Your task to perform on an android device: set an alarm Image 0: 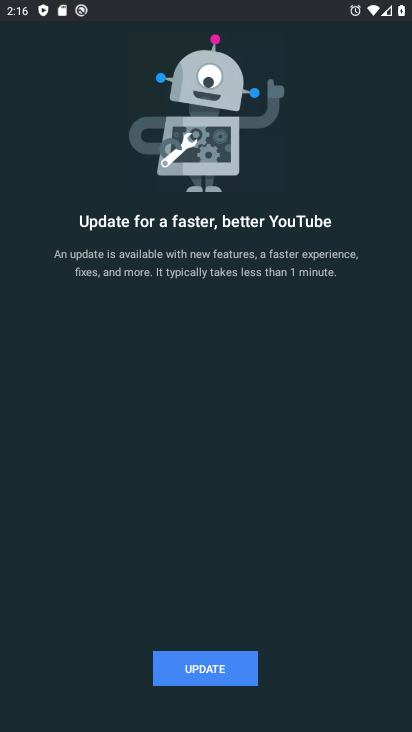
Step 0: press home button
Your task to perform on an android device: set an alarm Image 1: 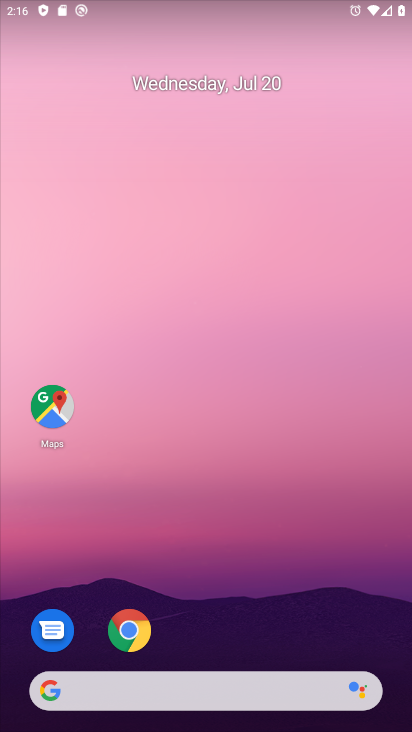
Step 1: drag from (51, 551) to (261, 146)
Your task to perform on an android device: set an alarm Image 2: 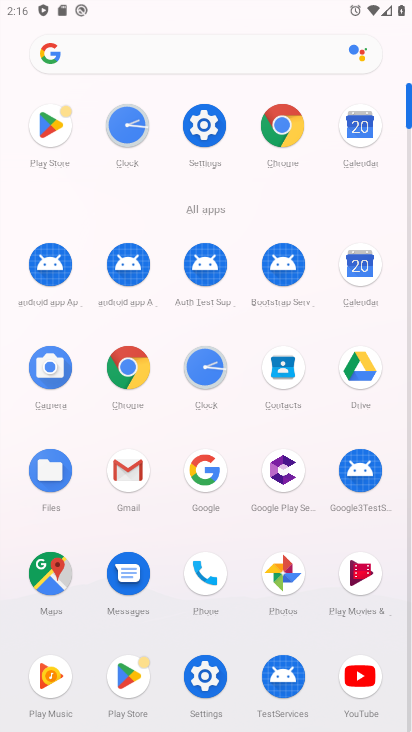
Step 2: click (124, 116)
Your task to perform on an android device: set an alarm Image 3: 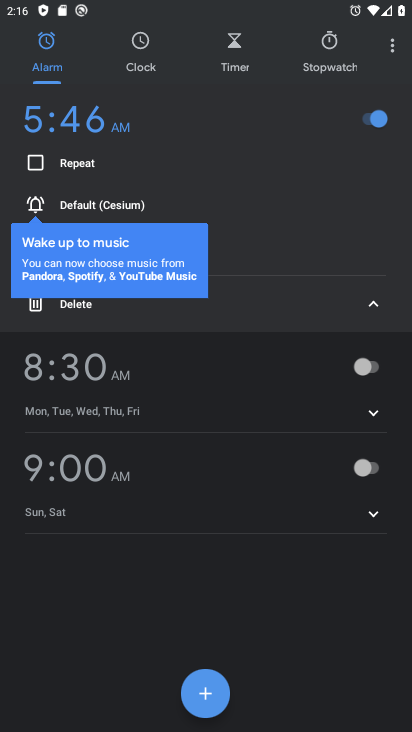
Step 3: click (206, 708)
Your task to perform on an android device: set an alarm Image 4: 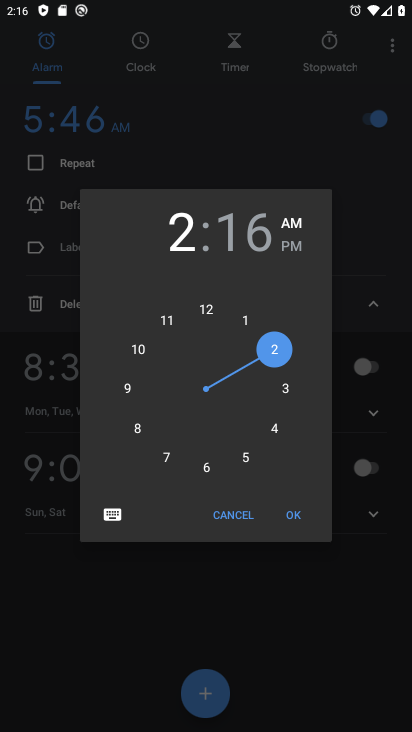
Step 4: click (271, 426)
Your task to perform on an android device: set an alarm Image 5: 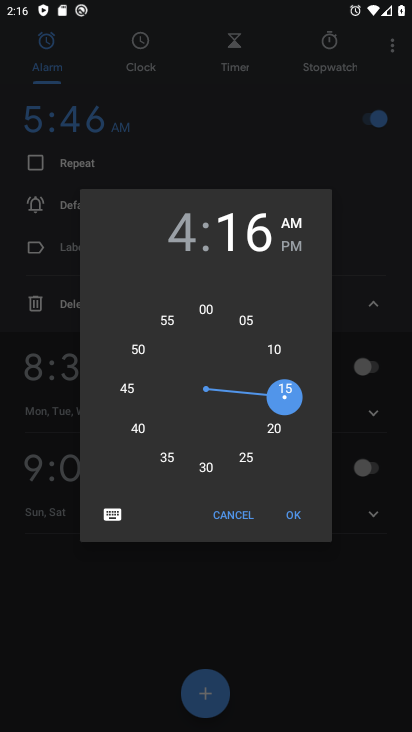
Step 5: click (252, 468)
Your task to perform on an android device: set an alarm Image 6: 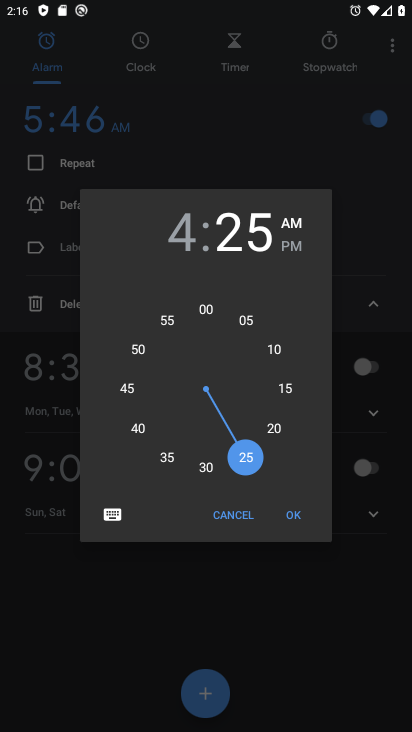
Step 6: click (286, 516)
Your task to perform on an android device: set an alarm Image 7: 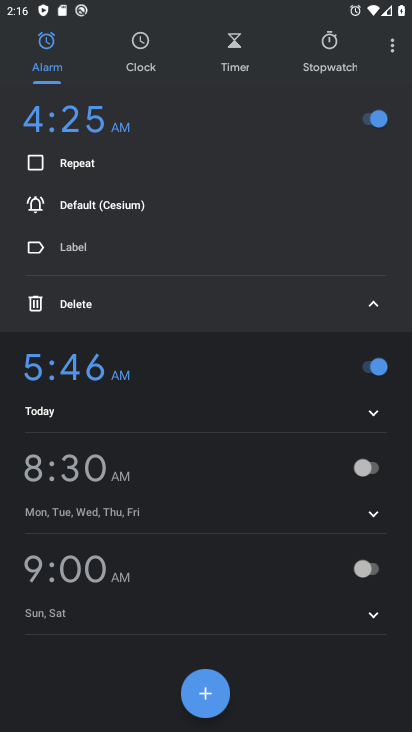
Step 7: task complete